Your task to perform on an android device: turn on the 12-hour format for clock Image 0: 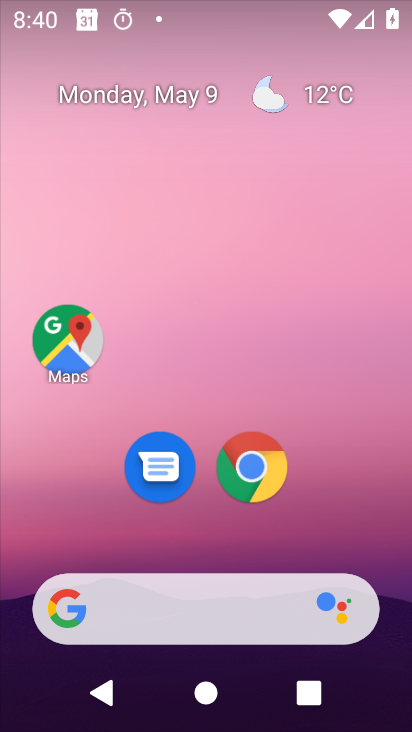
Step 0: drag from (389, 578) to (387, 8)
Your task to perform on an android device: turn on the 12-hour format for clock Image 1: 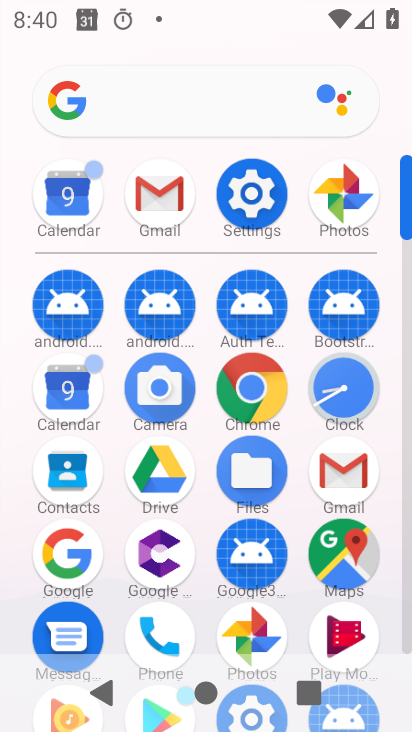
Step 1: click (330, 393)
Your task to perform on an android device: turn on the 12-hour format for clock Image 2: 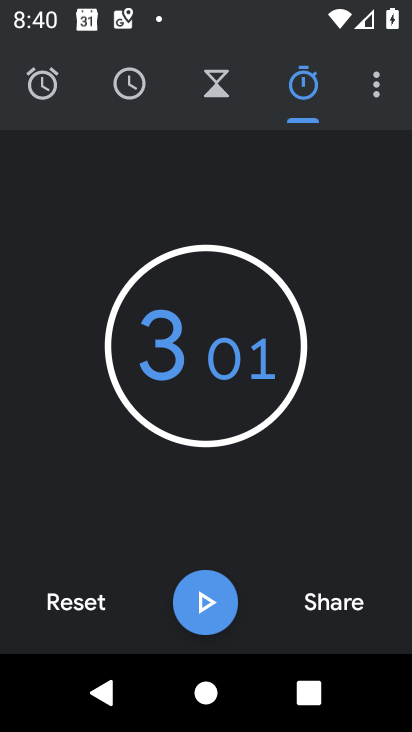
Step 2: click (382, 95)
Your task to perform on an android device: turn on the 12-hour format for clock Image 3: 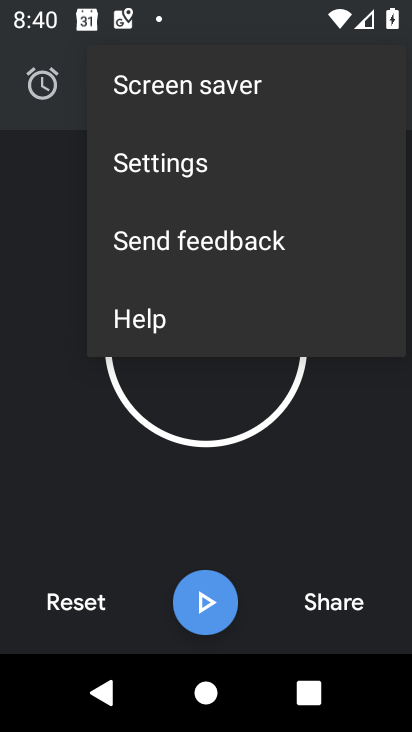
Step 3: click (172, 177)
Your task to perform on an android device: turn on the 12-hour format for clock Image 4: 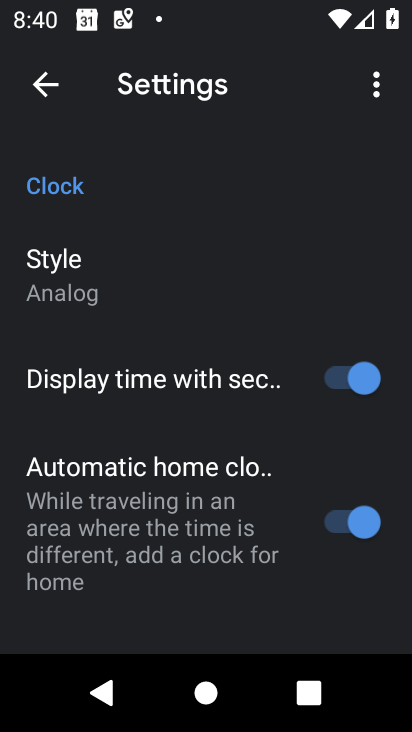
Step 4: drag from (175, 571) to (140, 217)
Your task to perform on an android device: turn on the 12-hour format for clock Image 5: 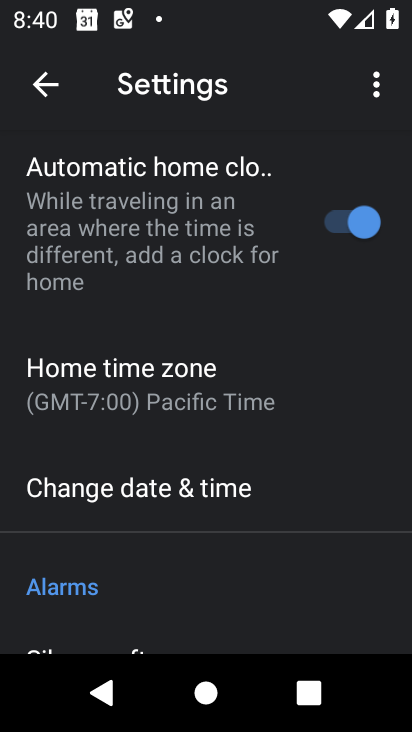
Step 5: click (123, 502)
Your task to perform on an android device: turn on the 12-hour format for clock Image 6: 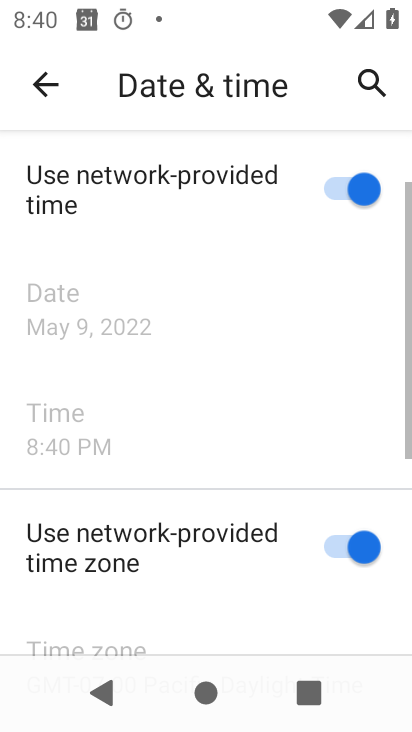
Step 6: task complete